Your task to perform on an android device: open chrome and create a bookmark for the current page Image 0: 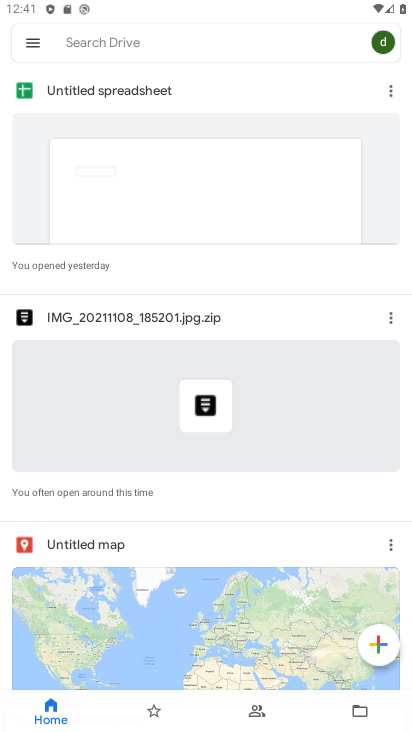
Step 0: press home button
Your task to perform on an android device: open chrome and create a bookmark for the current page Image 1: 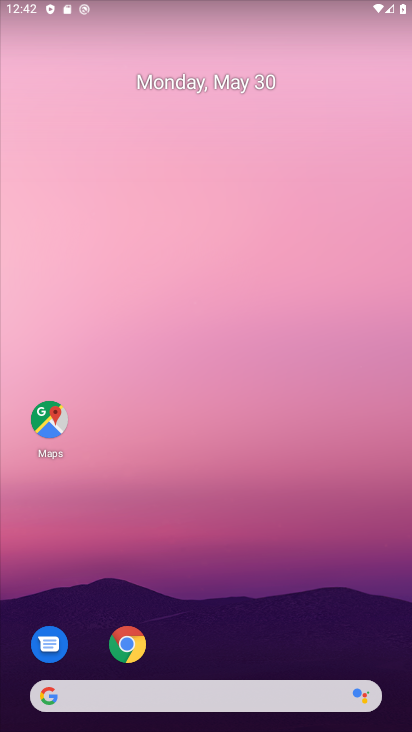
Step 1: drag from (284, 558) to (256, 171)
Your task to perform on an android device: open chrome and create a bookmark for the current page Image 2: 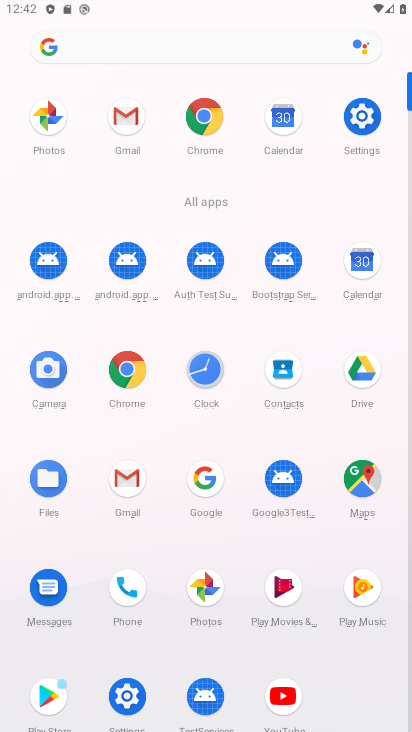
Step 2: click (135, 384)
Your task to perform on an android device: open chrome and create a bookmark for the current page Image 3: 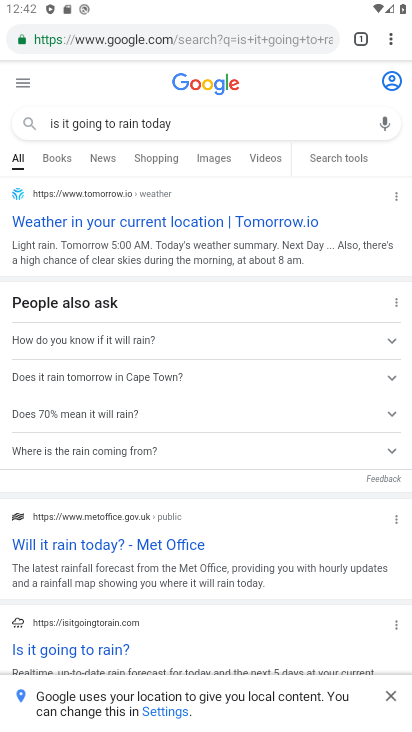
Step 3: drag from (392, 53) to (308, 143)
Your task to perform on an android device: open chrome and create a bookmark for the current page Image 4: 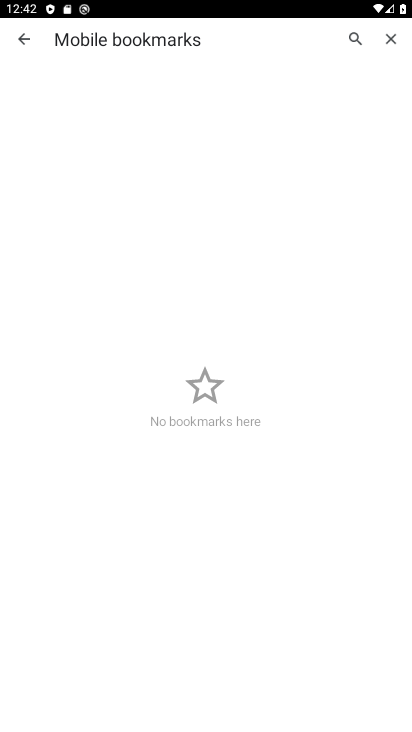
Step 4: click (18, 52)
Your task to perform on an android device: open chrome and create a bookmark for the current page Image 5: 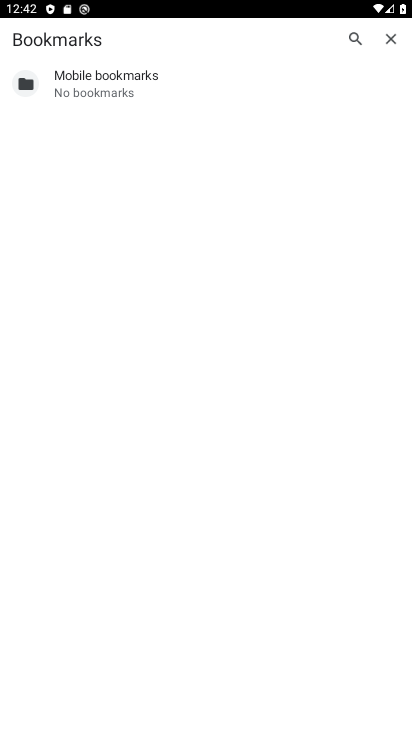
Step 5: click (13, 74)
Your task to perform on an android device: open chrome and create a bookmark for the current page Image 6: 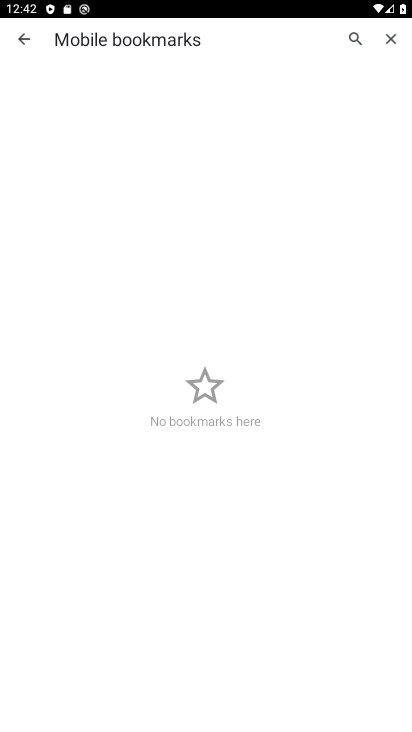
Step 6: click (2, 35)
Your task to perform on an android device: open chrome and create a bookmark for the current page Image 7: 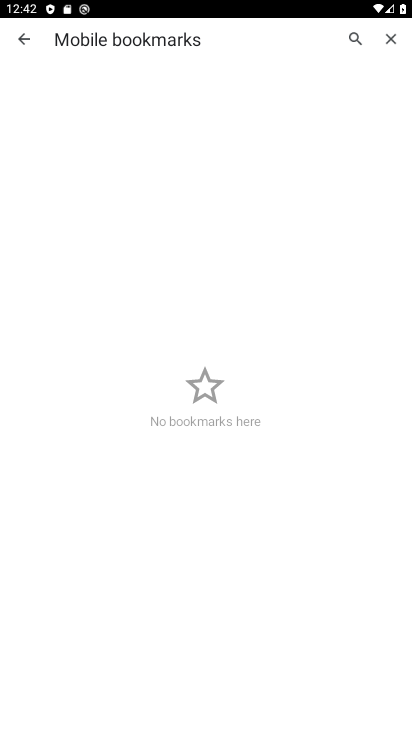
Step 7: click (24, 50)
Your task to perform on an android device: open chrome and create a bookmark for the current page Image 8: 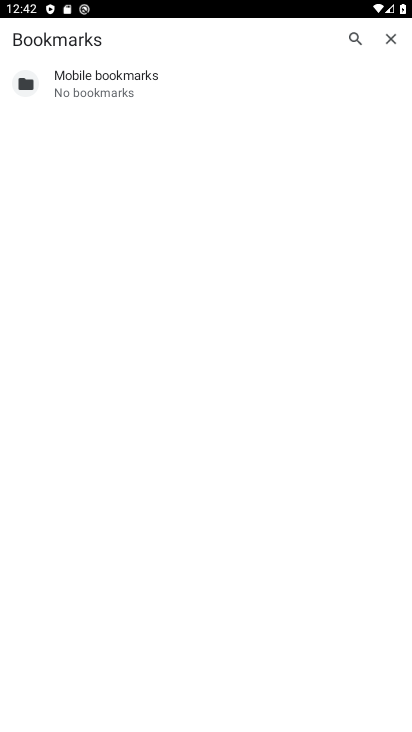
Step 8: click (392, 45)
Your task to perform on an android device: open chrome and create a bookmark for the current page Image 9: 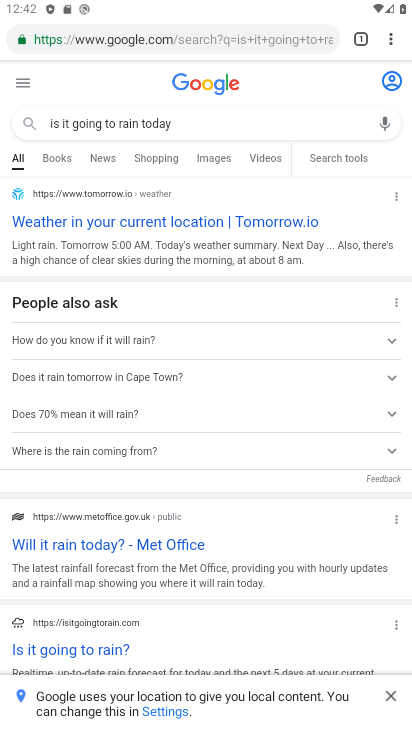
Step 9: task complete